Your task to perform on an android device: What's the weather going to be tomorrow? Image 0: 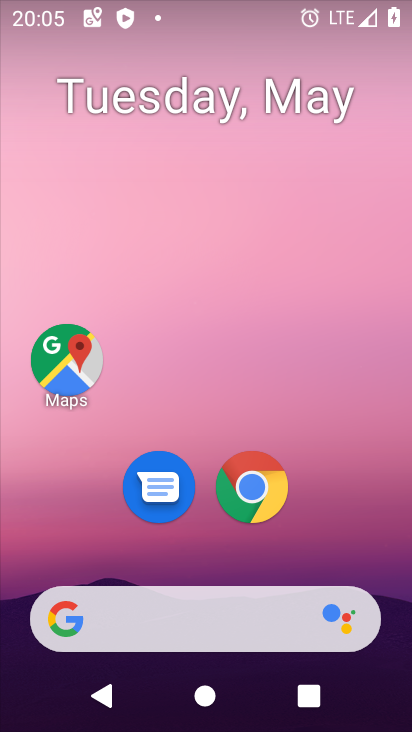
Step 0: click (204, 614)
Your task to perform on an android device: What's the weather going to be tomorrow? Image 1: 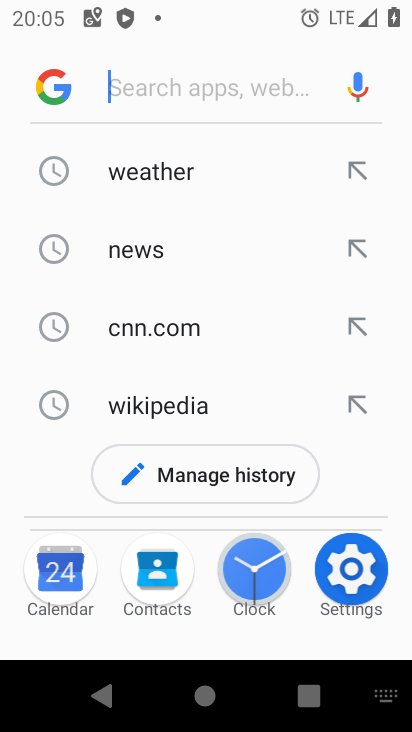
Step 1: click (163, 172)
Your task to perform on an android device: What's the weather going to be tomorrow? Image 2: 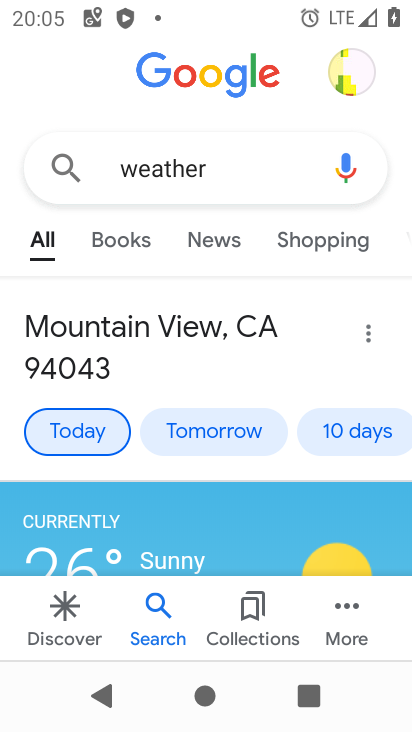
Step 2: click (215, 424)
Your task to perform on an android device: What's the weather going to be tomorrow? Image 3: 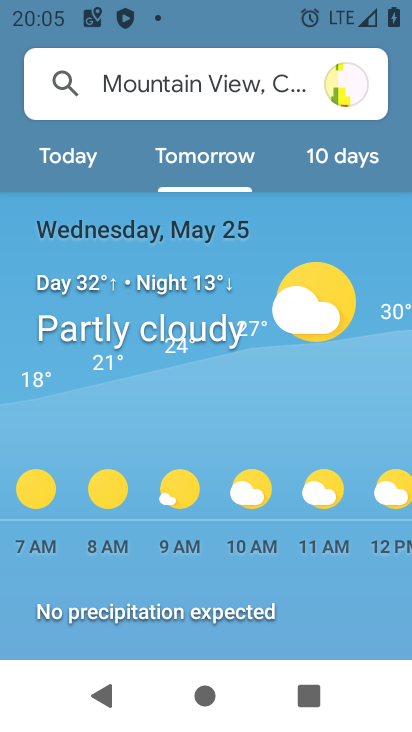
Step 3: task complete